Your task to perform on an android device: Check the news Image 0: 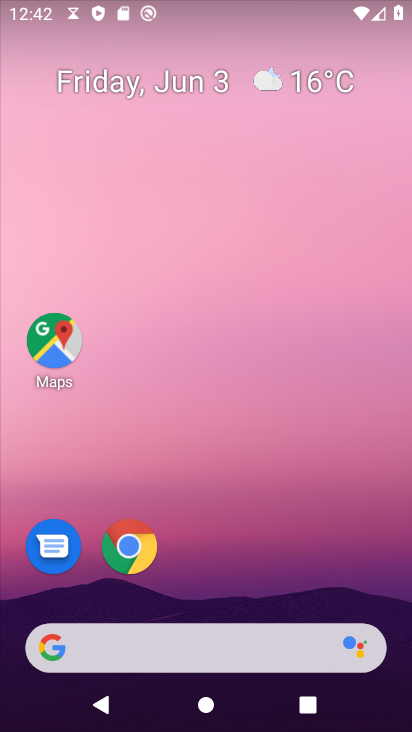
Step 0: click (181, 651)
Your task to perform on an android device: Check the news Image 1: 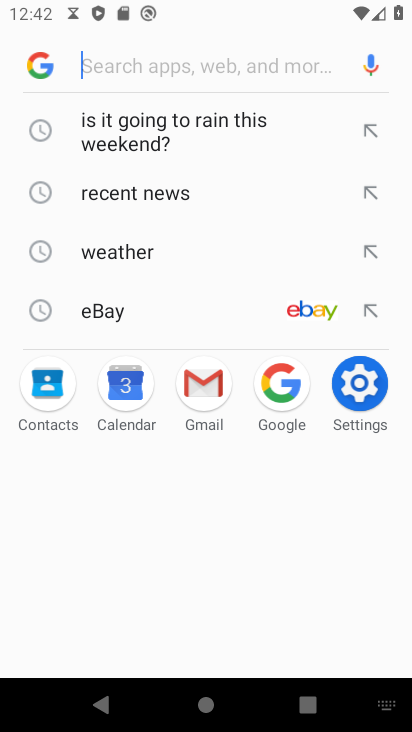
Step 1: click (149, 198)
Your task to perform on an android device: Check the news Image 2: 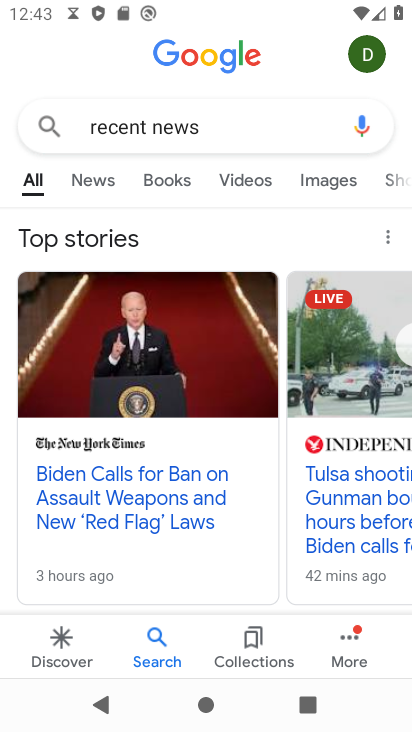
Step 2: task complete